Your task to perform on an android device: visit the assistant section in the google photos Image 0: 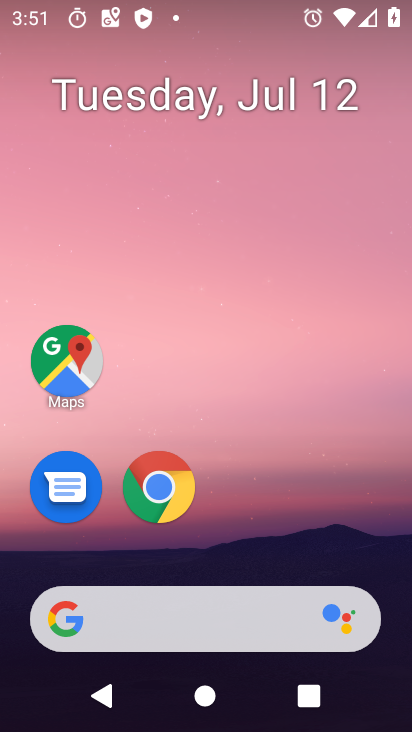
Step 0: drag from (200, 588) to (204, 258)
Your task to perform on an android device: visit the assistant section in the google photos Image 1: 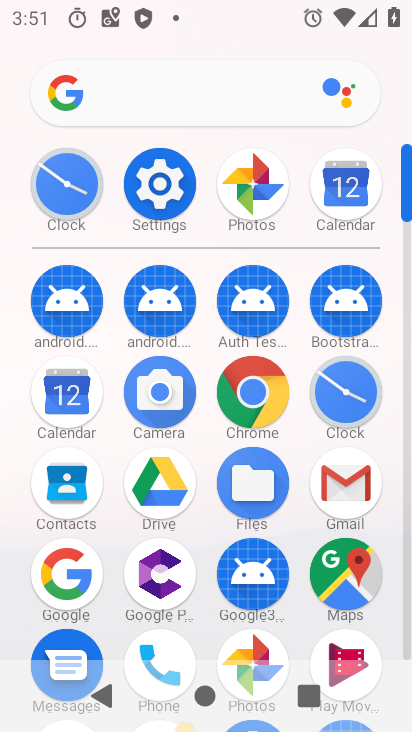
Step 1: click (256, 665)
Your task to perform on an android device: visit the assistant section in the google photos Image 2: 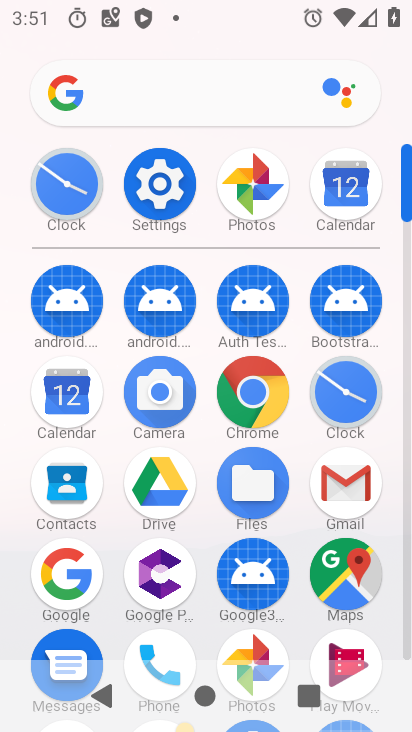
Step 2: click (254, 663)
Your task to perform on an android device: visit the assistant section in the google photos Image 3: 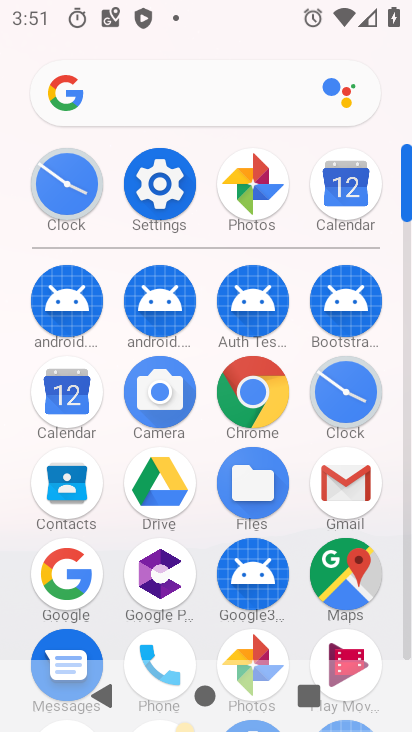
Step 3: drag from (188, 614) to (230, 237)
Your task to perform on an android device: visit the assistant section in the google photos Image 4: 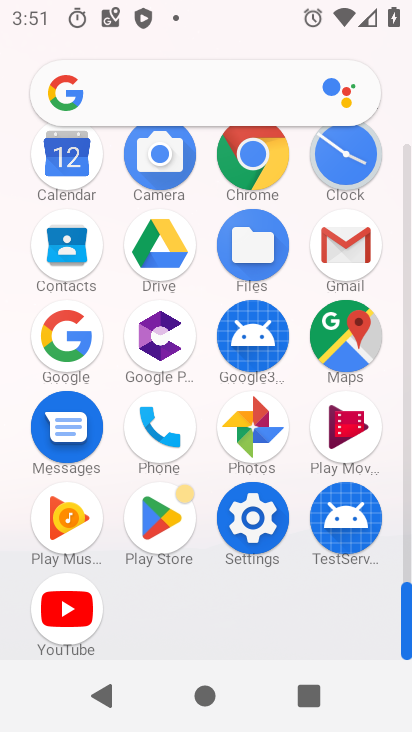
Step 4: click (251, 427)
Your task to perform on an android device: visit the assistant section in the google photos Image 5: 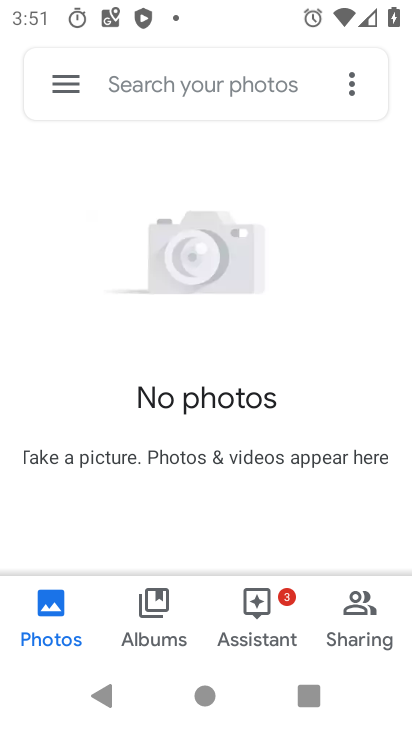
Step 5: click (266, 600)
Your task to perform on an android device: visit the assistant section in the google photos Image 6: 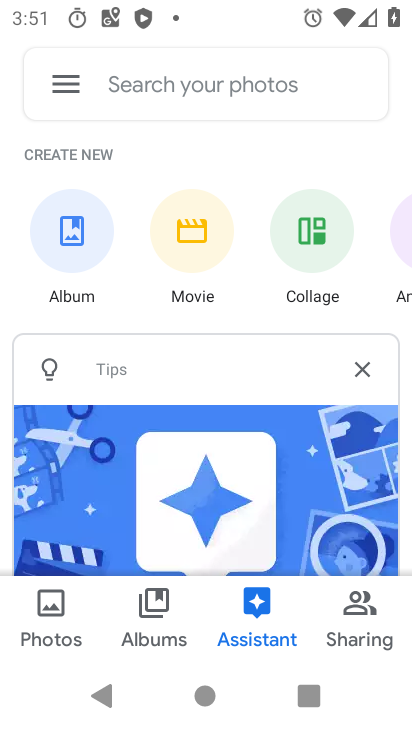
Step 6: task complete